Your task to perform on an android device: read, delete, or share a saved page in the chrome app Image 0: 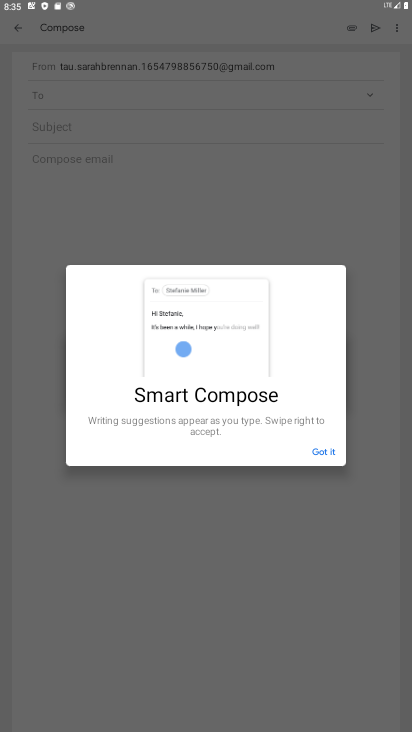
Step 0: press home button
Your task to perform on an android device: read, delete, or share a saved page in the chrome app Image 1: 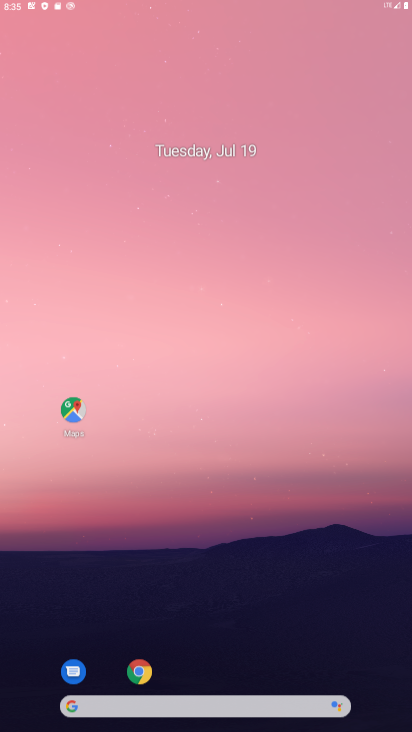
Step 1: drag from (396, 719) to (190, 57)
Your task to perform on an android device: read, delete, or share a saved page in the chrome app Image 2: 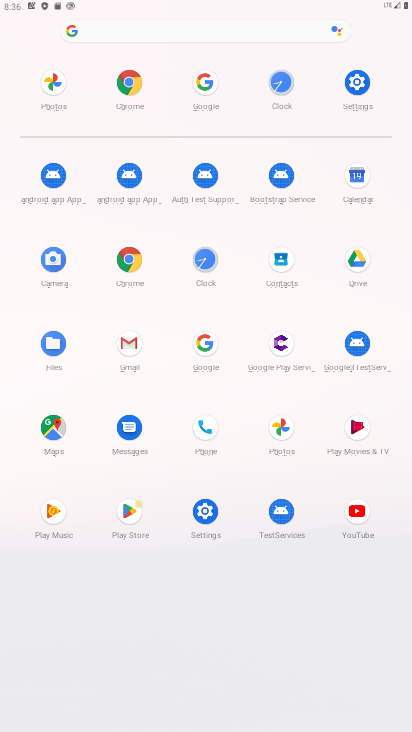
Step 2: click (121, 249)
Your task to perform on an android device: read, delete, or share a saved page in the chrome app Image 3: 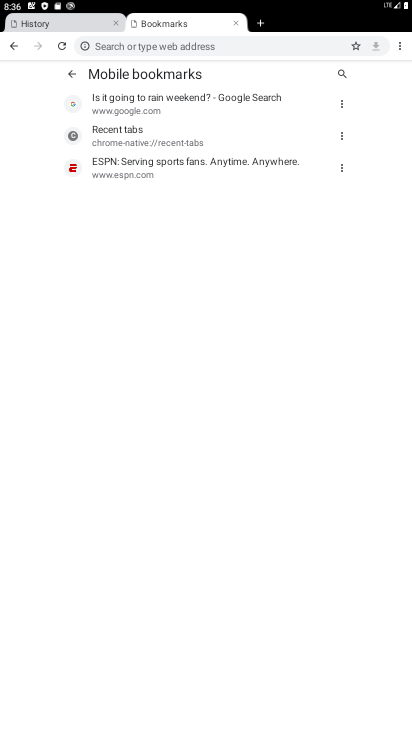
Step 3: task complete